Your task to perform on an android device: Clear the cart on walmart. Search for razer kraken on walmart, select the first entry, and add it to the cart. Image 0: 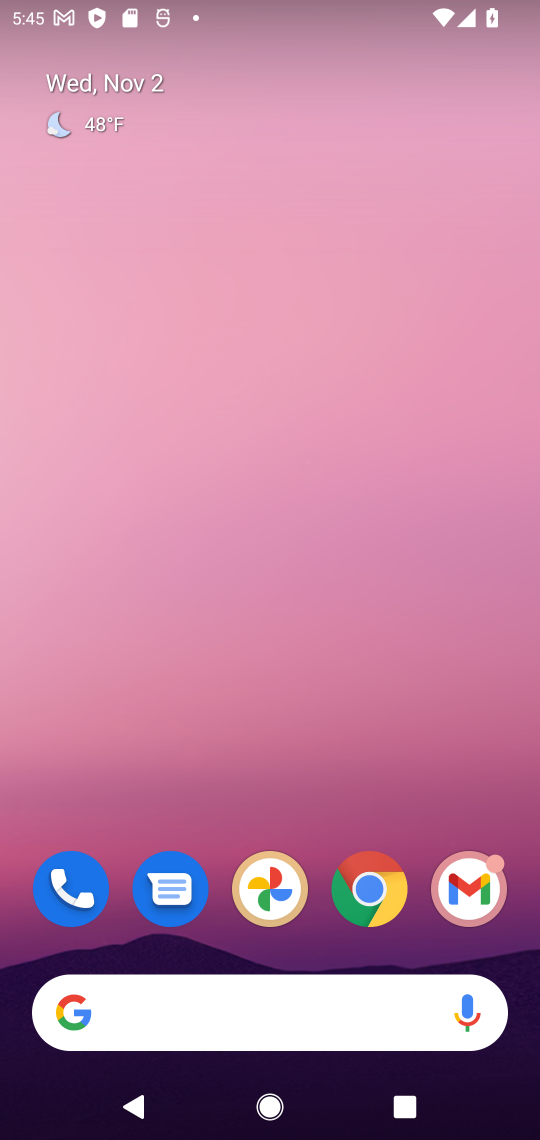
Step 0: click (377, 890)
Your task to perform on an android device: Clear the cart on walmart. Search for razer kraken on walmart, select the first entry, and add it to the cart. Image 1: 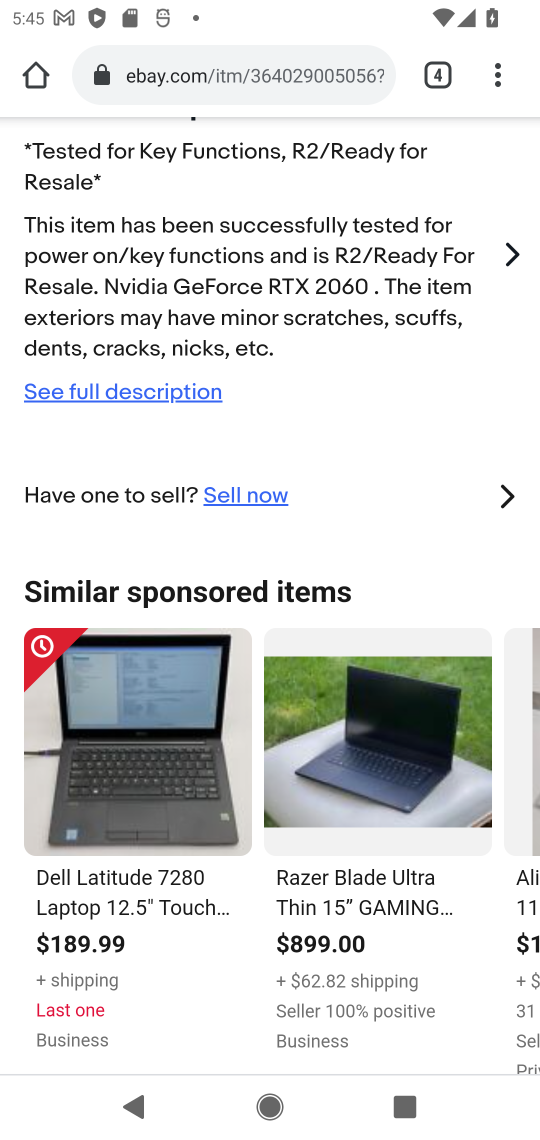
Step 1: click (253, 74)
Your task to perform on an android device: Clear the cart on walmart. Search for razer kraken on walmart, select the first entry, and add it to the cart. Image 2: 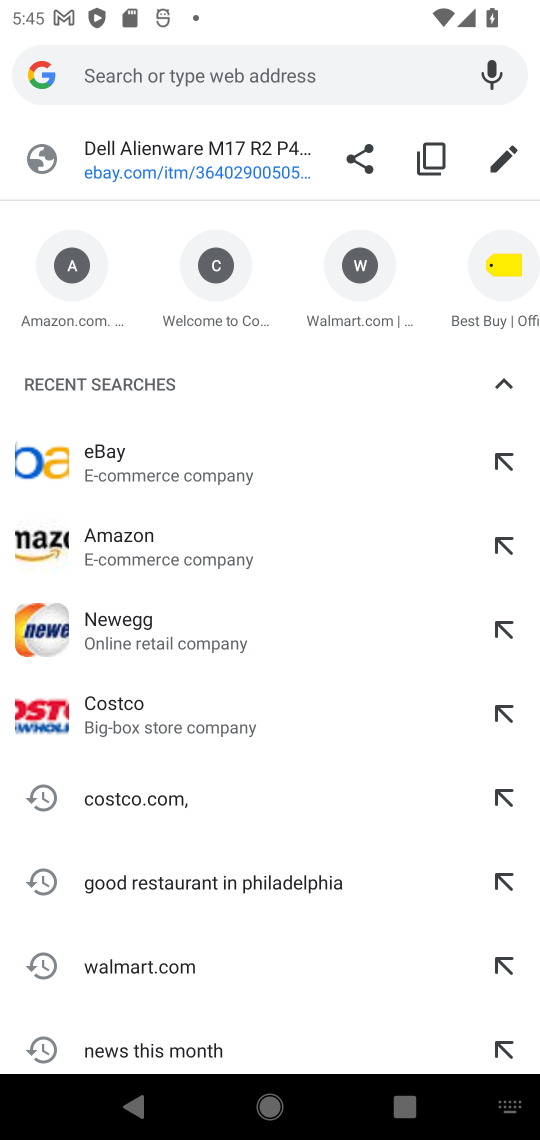
Step 2: click (359, 256)
Your task to perform on an android device: Clear the cart on walmart. Search for razer kraken on walmart, select the first entry, and add it to the cart. Image 3: 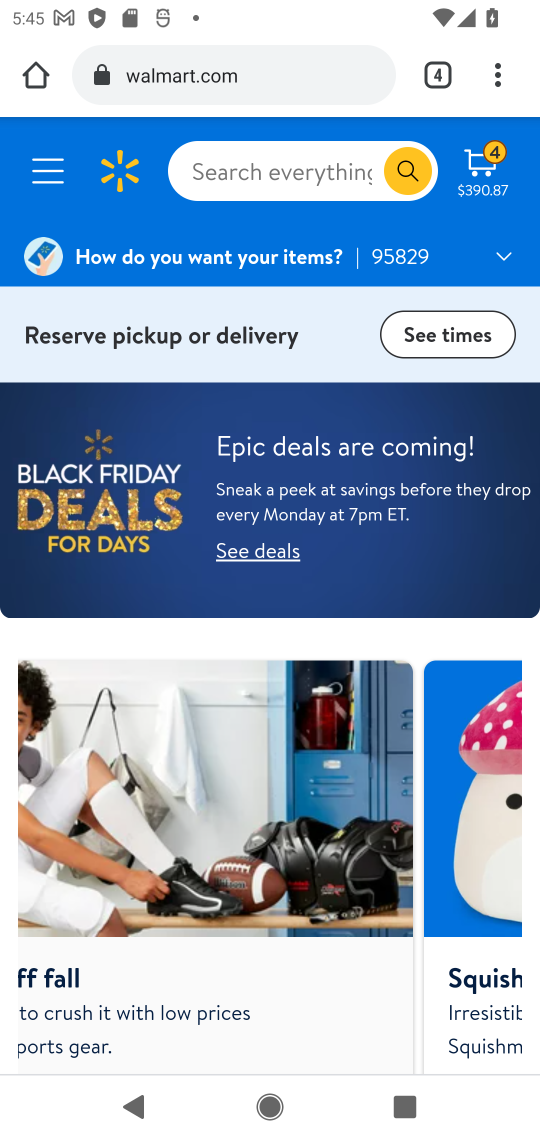
Step 3: click (308, 175)
Your task to perform on an android device: Clear the cart on walmart. Search for razer kraken on walmart, select the first entry, and add it to the cart. Image 4: 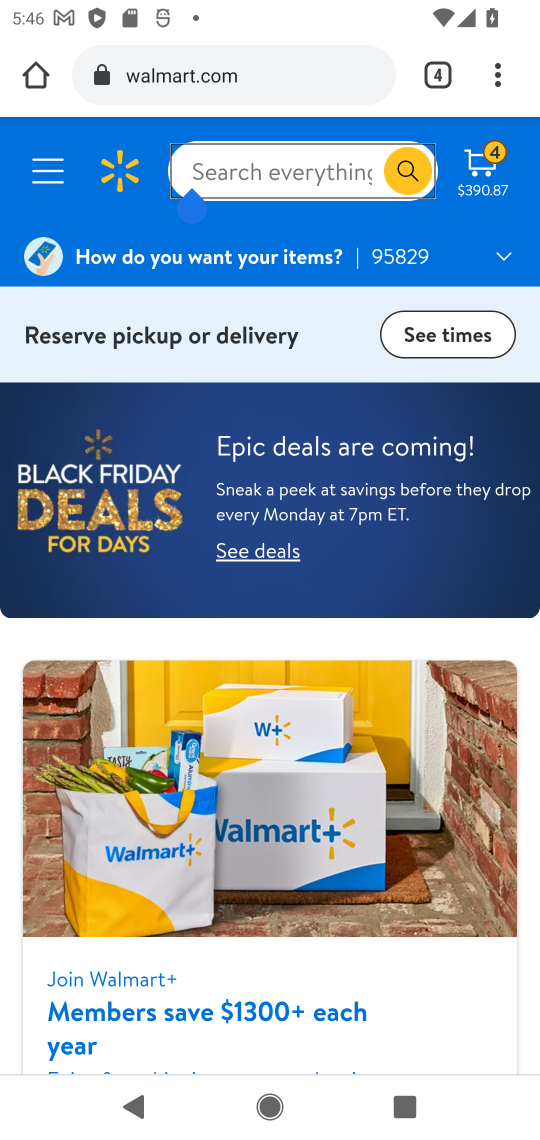
Step 4: type "razer kraken "
Your task to perform on an android device: Clear the cart on walmart. Search for razer kraken on walmart, select the first entry, and add it to the cart. Image 5: 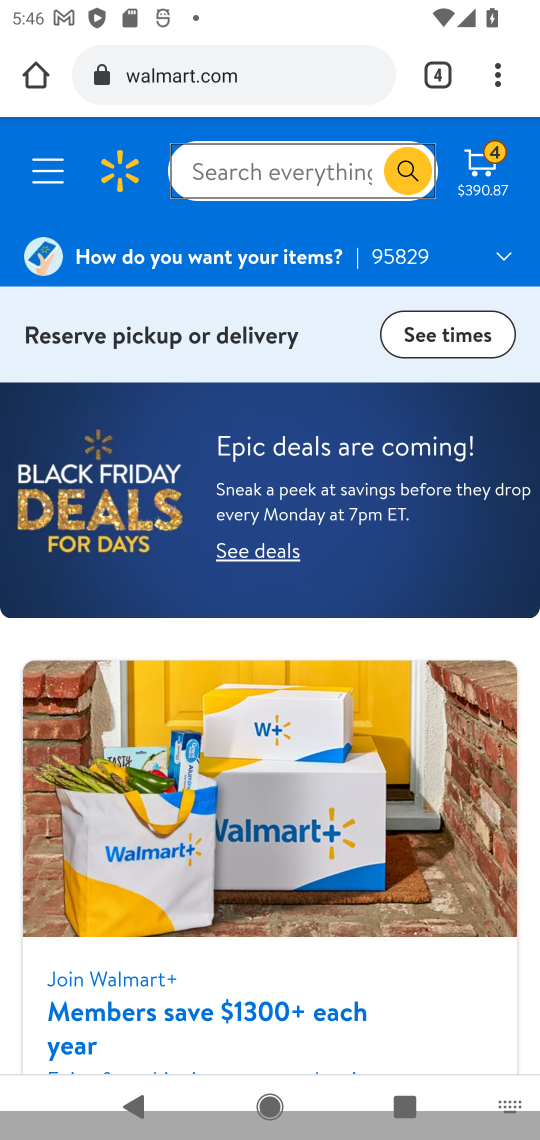
Step 5: press enter
Your task to perform on an android device: Clear the cart on walmart. Search for razer kraken on walmart, select the first entry, and add it to the cart. Image 6: 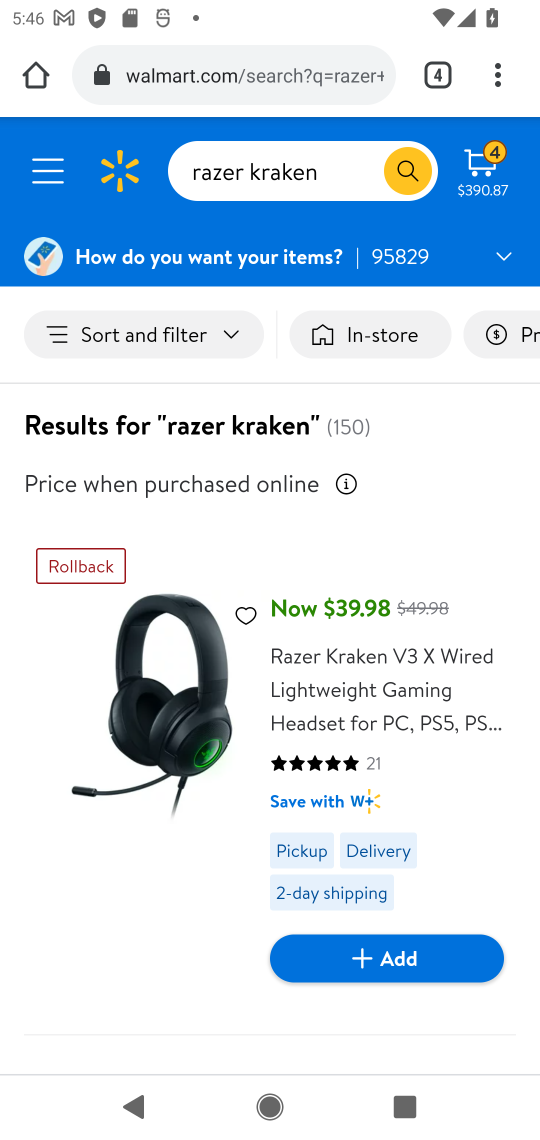
Step 6: click (331, 678)
Your task to perform on an android device: Clear the cart on walmart. Search for razer kraken on walmart, select the first entry, and add it to the cart. Image 7: 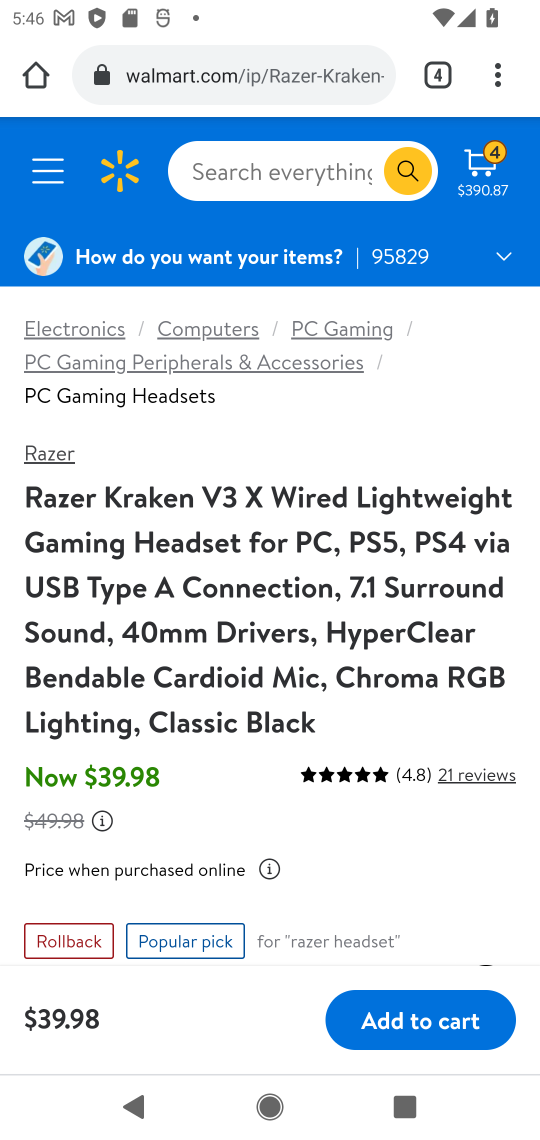
Step 7: click (432, 1028)
Your task to perform on an android device: Clear the cart on walmart. Search for razer kraken on walmart, select the first entry, and add it to the cart. Image 8: 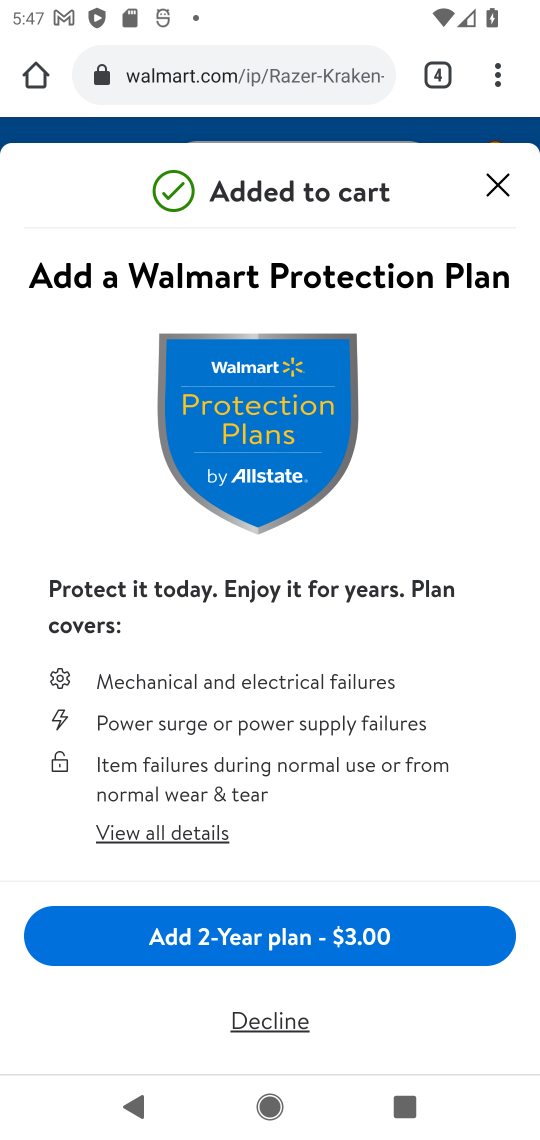
Step 8: click (495, 183)
Your task to perform on an android device: Clear the cart on walmart. Search for razer kraken on walmart, select the first entry, and add it to the cart. Image 9: 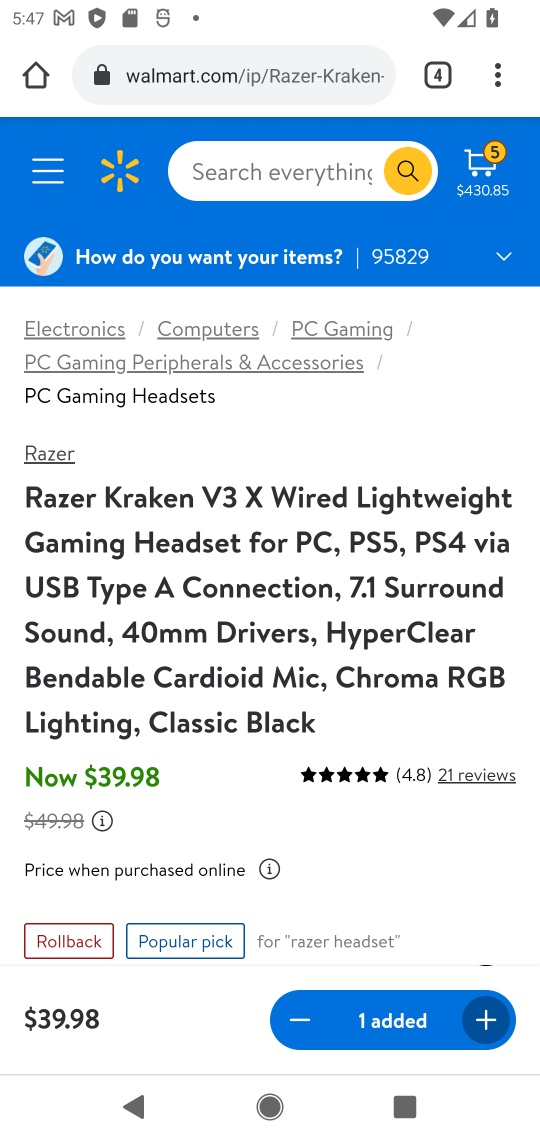
Step 9: task complete